Your task to perform on an android device: turn on sleep mode Image 0: 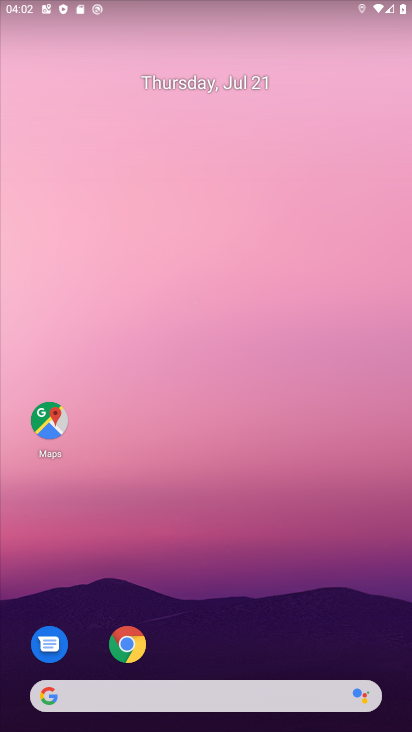
Step 0: drag from (266, 648) to (237, 0)
Your task to perform on an android device: turn on sleep mode Image 1: 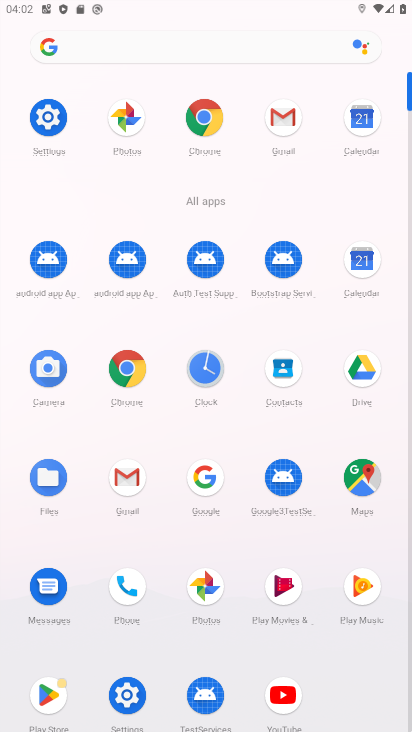
Step 1: click (44, 118)
Your task to perform on an android device: turn on sleep mode Image 2: 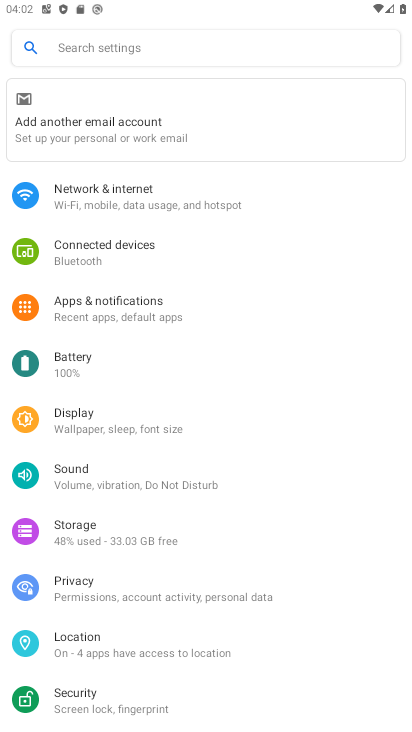
Step 2: click (111, 425)
Your task to perform on an android device: turn on sleep mode Image 3: 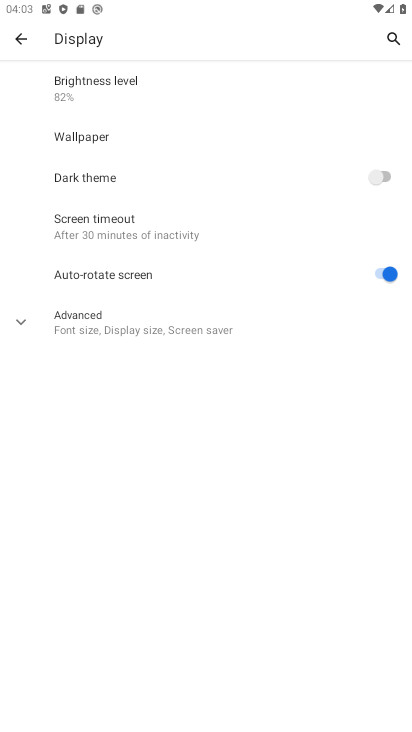
Step 3: click (19, 322)
Your task to perform on an android device: turn on sleep mode Image 4: 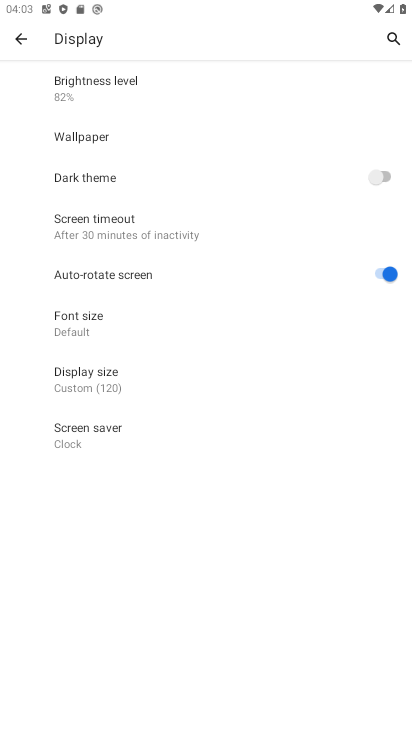
Step 4: task complete